Your task to perform on an android device: set an alarm Image 0: 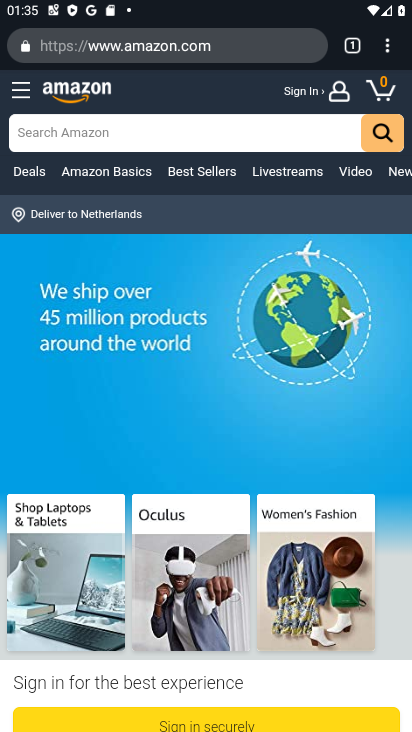
Step 0: press home button
Your task to perform on an android device: set an alarm Image 1: 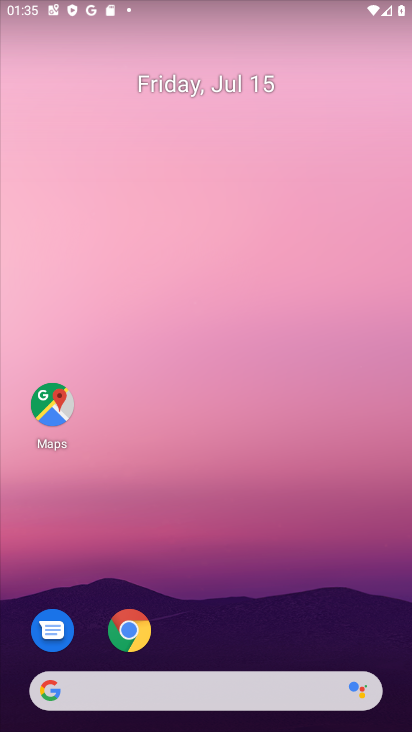
Step 1: drag from (268, 635) to (252, 134)
Your task to perform on an android device: set an alarm Image 2: 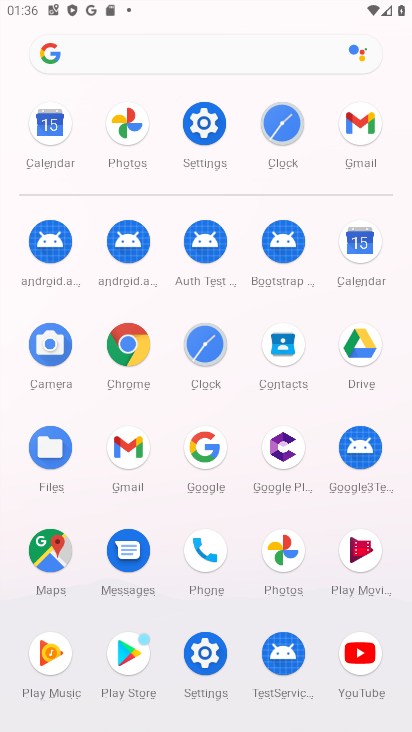
Step 2: click (275, 135)
Your task to perform on an android device: set an alarm Image 3: 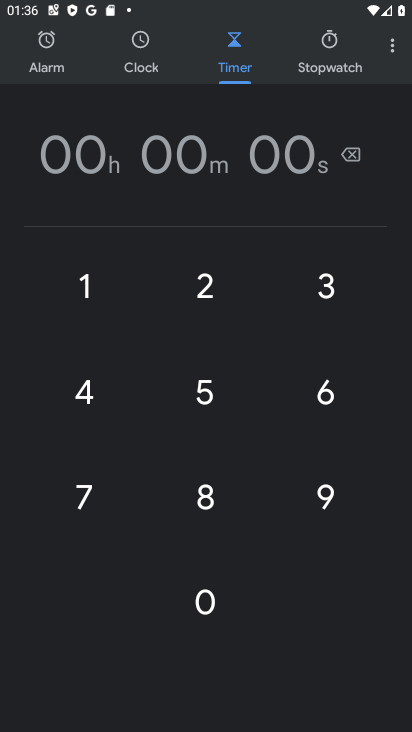
Step 3: click (38, 70)
Your task to perform on an android device: set an alarm Image 4: 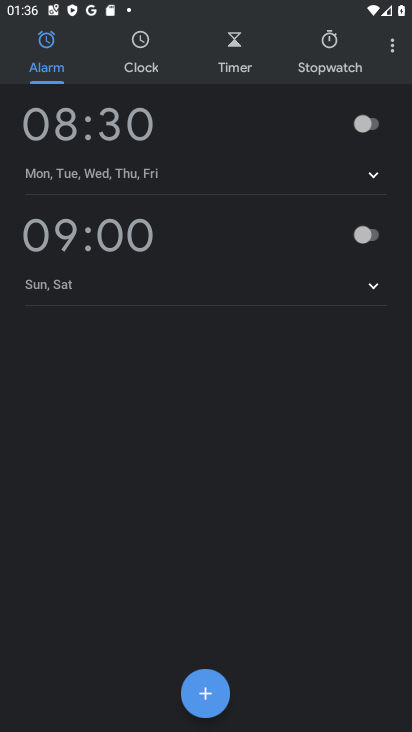
Step 4: click (362, 114)
Your task to perform on an android device: set an alarm Image 5: 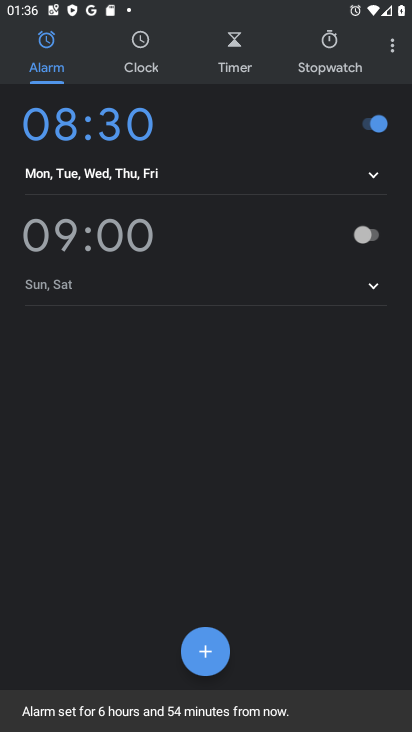
Step 5: task complete